Your task to perform on an android device: turn on priority inbox in the gmail app Image 0: 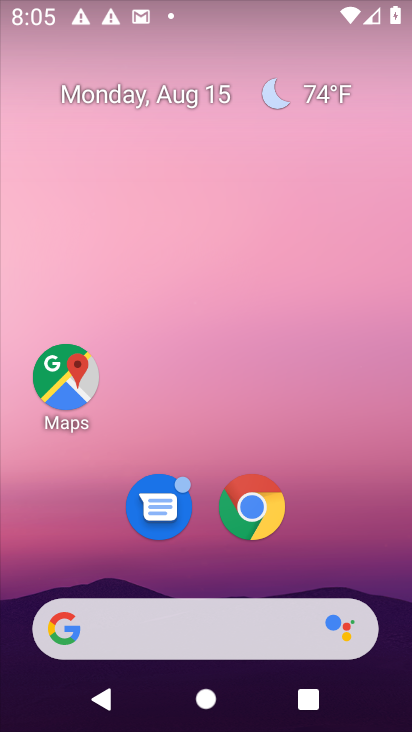
Step 0: drag from (319, 707) to (308, 137)
Your task to perform on an android device: turn on priority inbox in the gmail app Image 1: 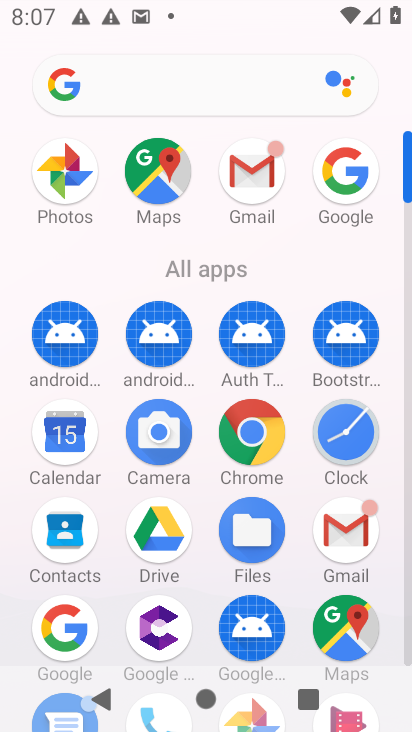
Step 1: click (257, 183)
Your task to perform on an android device: turn on priority inbox in the gmail app Image 2: 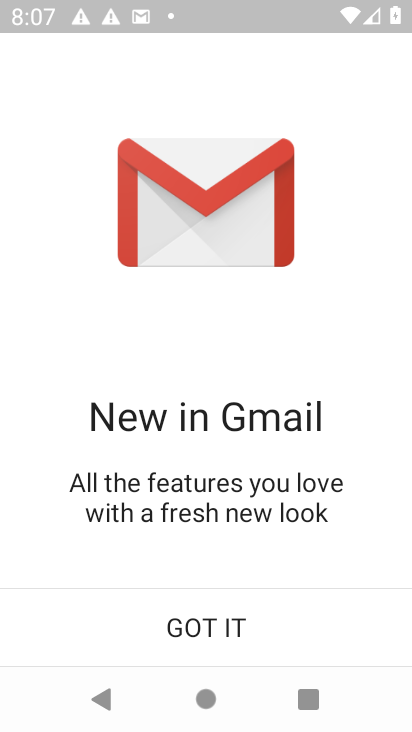
Step 2: click (160, 621)
Your task to perform on an android device: turn on priority inbox in the gmail app Image 3: 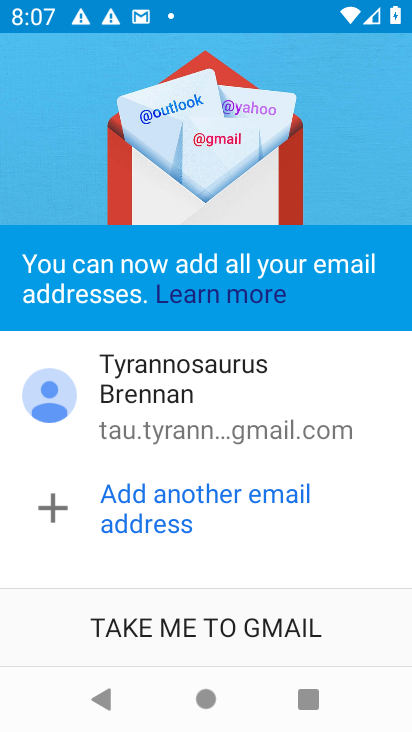
Step 3: click (156, 616)
Your task to perform on an android device: turn on priority inbox in the gmail app Image 4: 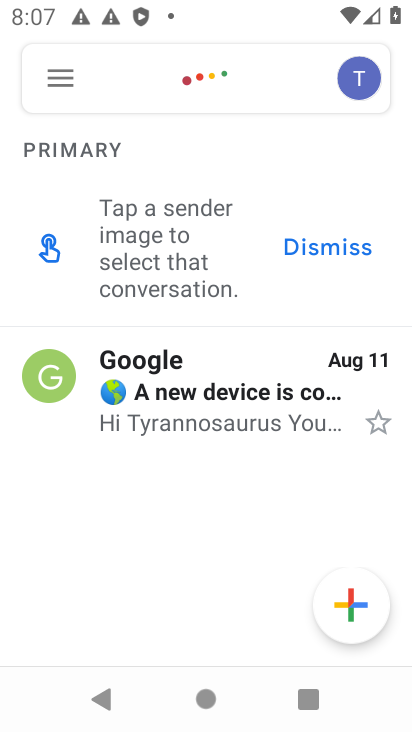
Step 4: click (77, 68)
Your task to perform on an android device: turn on priority inbox in the gmail app Image 5: 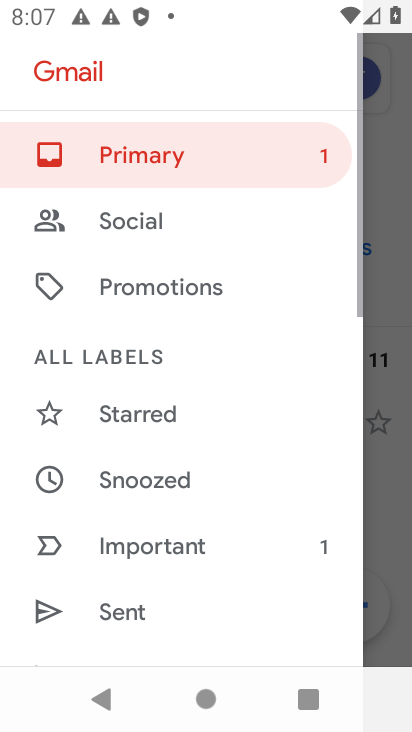
Step 5: drag from (174, 583) to (292, 211)
Your task to perform on an android device: turn on priority inbox in the gmail app Image 6: 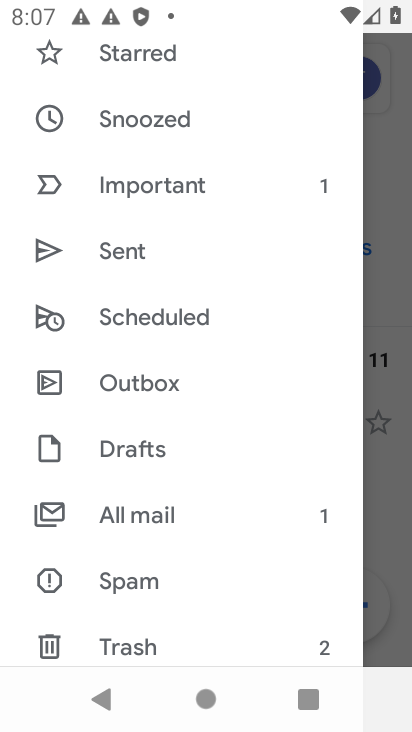
Step 6: drag from (198, 573) to (318, 137)
Your task to perform on an android device: turn on priority inbox in the gmail app Image 7: 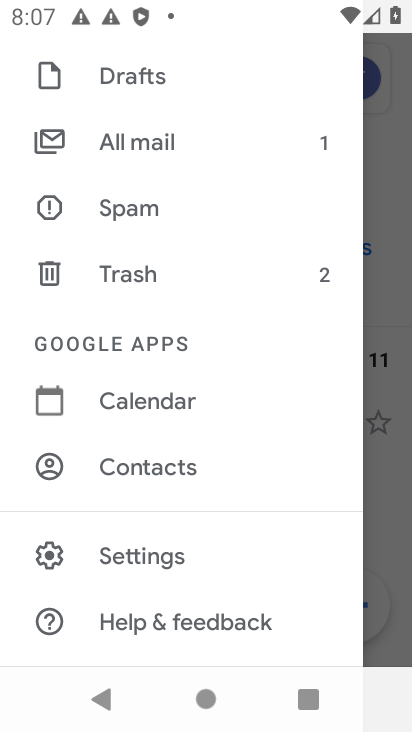
Step 7: click (179, 546)
Your task to perform on an android device: turn on priority inbox in the gmail app Image 8: 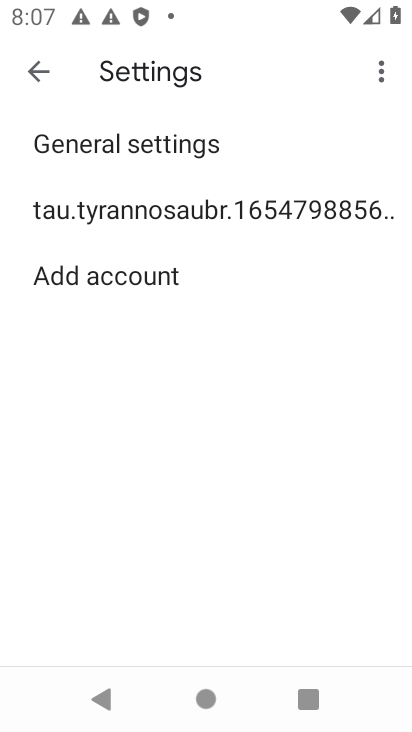
Step 8: click (85, 213)
Your task to perform on an android device: turn on priority inbox in the gmail app Image 9: 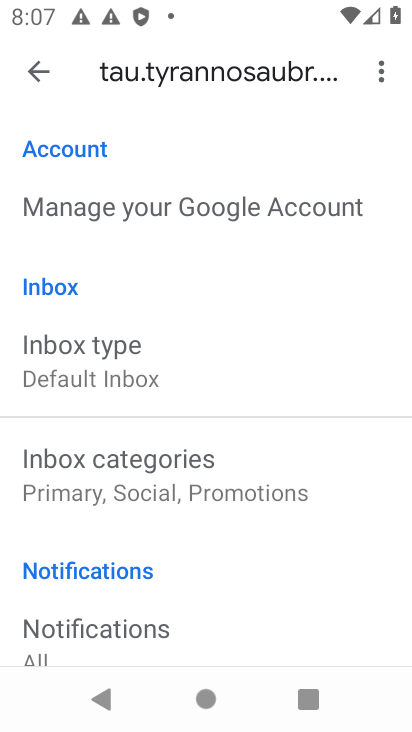
Step 9: click (111, 345)
Your task to perform on an android device: turn on priority inbox in the gmail app Image 10: 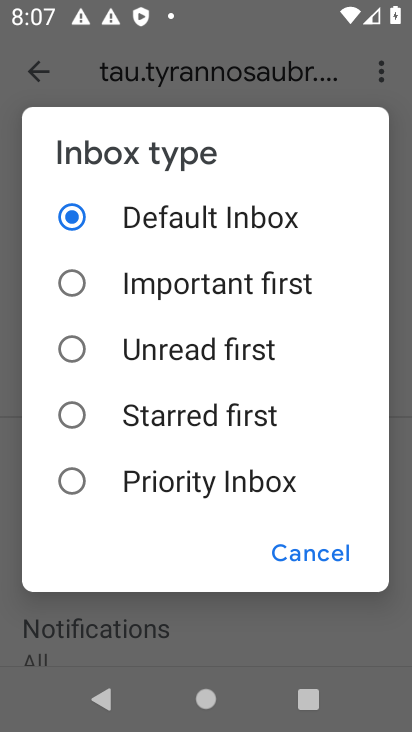
Step 10: click (146, 494)
Your task to perform on an android device: turn on priority inbox in the gmail app Image 11: 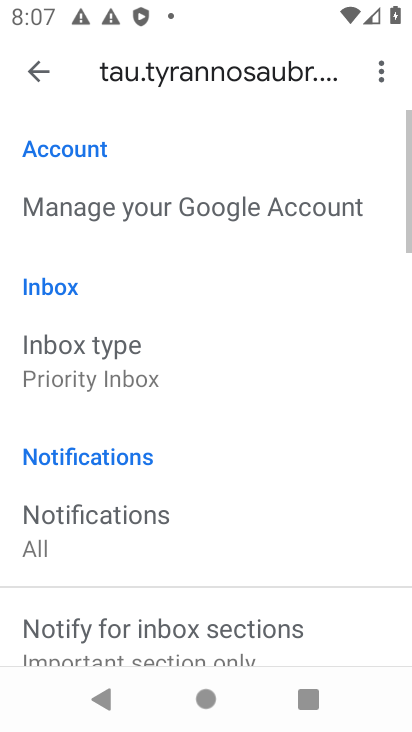
Step 11: task complete